Your task to perform on an android device: Clear the cart on ebay. Add rayovac triple a to the cart on ebay, then select checkout. Image 0: 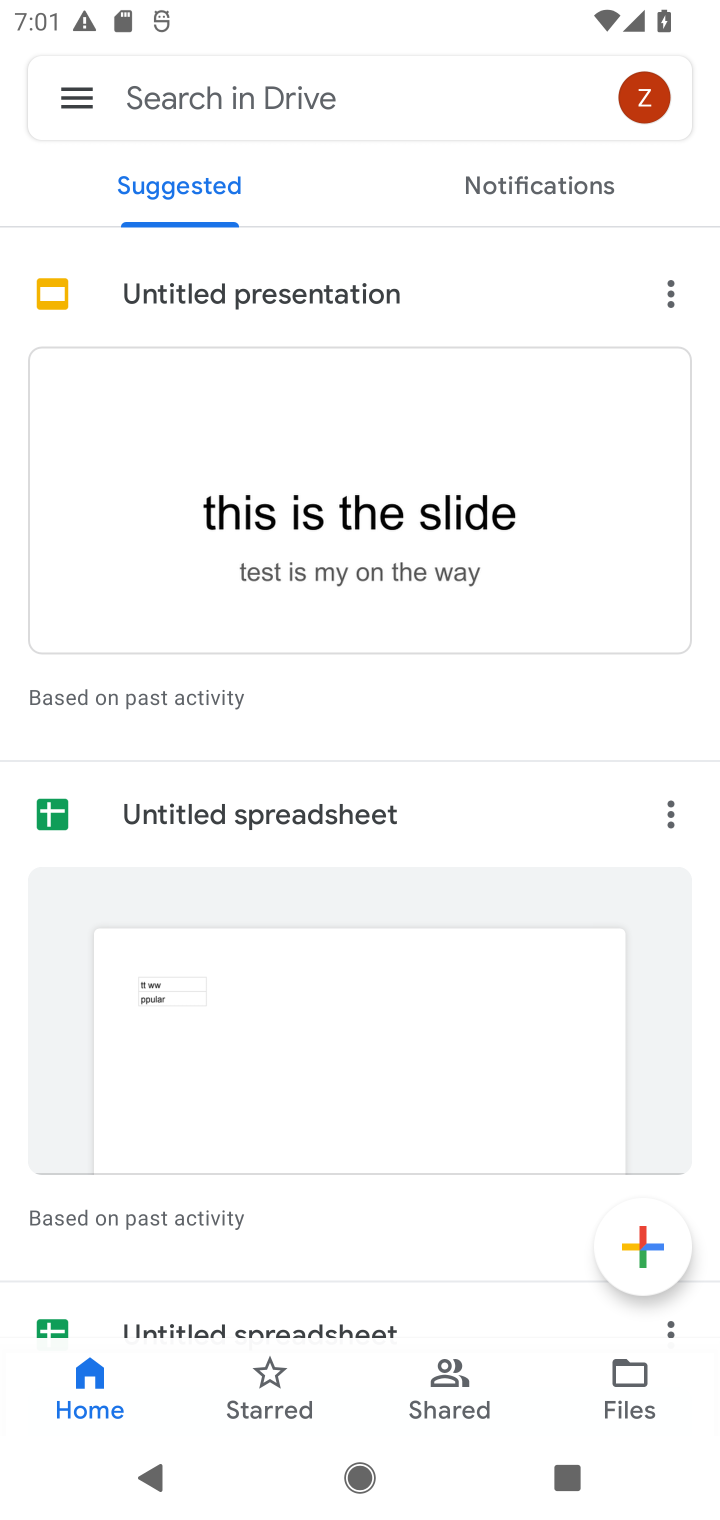
Step 0: press home button
Your task to perform on an android device: Clear the cart on ebay. Add rayovac triple a to the cart on ebay, then select checkout. Image 1: 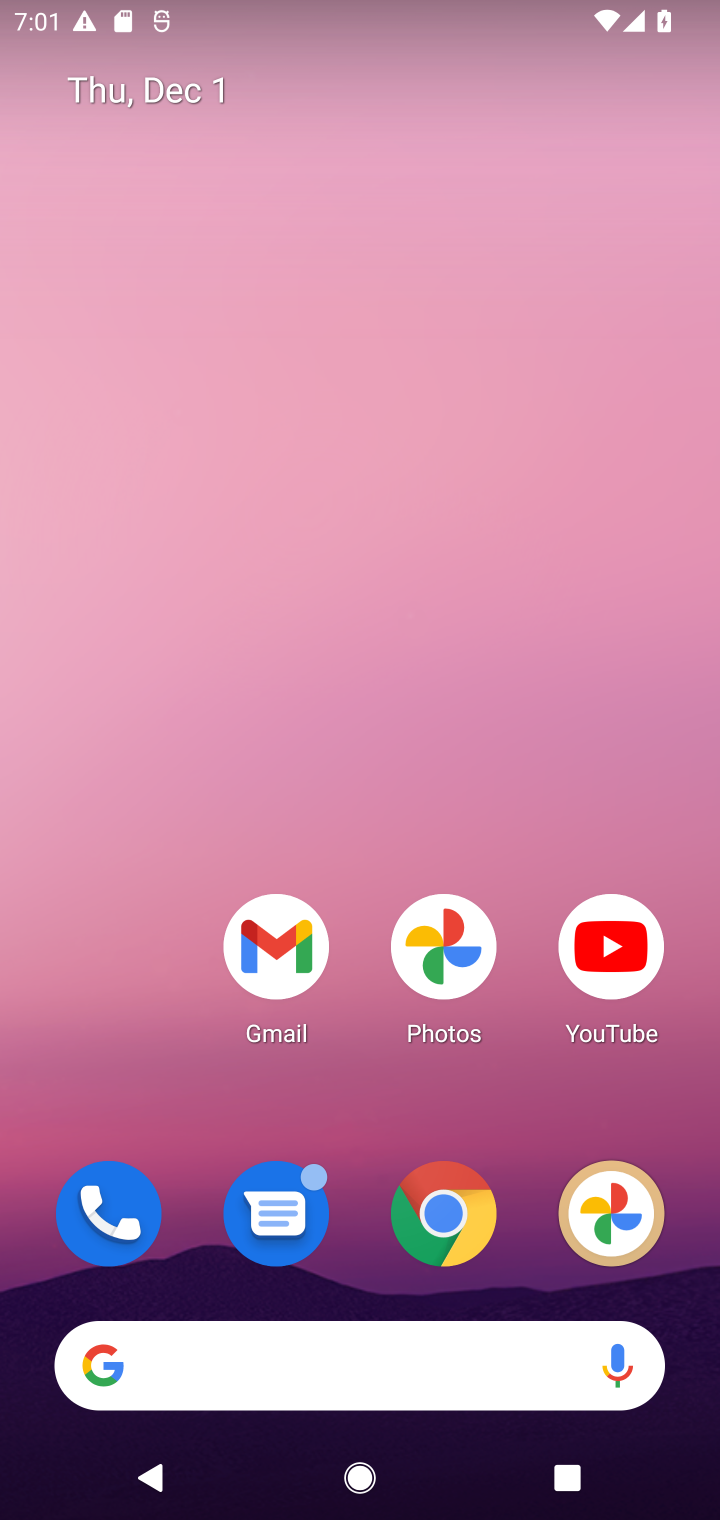
Step 1: click (367, 1363)
Your task to perform on an android device: Clear the cart on ebay. Add rayovac triple a to the cart on ebay, then select checkout. Image 2: 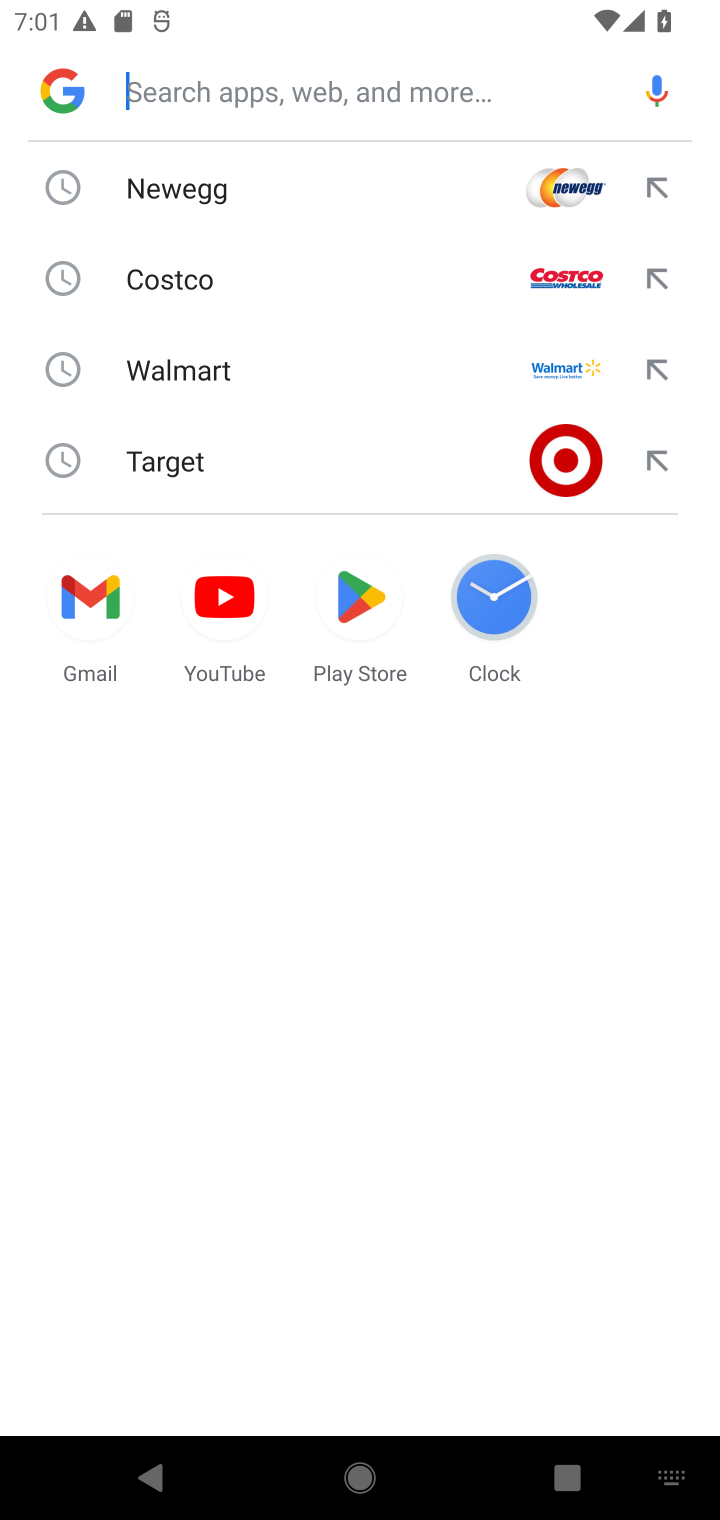
Step 2: type "ebay"
Your task to perform on an android device: Clear the cart on ebay. Add rayovac triple a to the cart on ebay, then select checkout. Image 3: 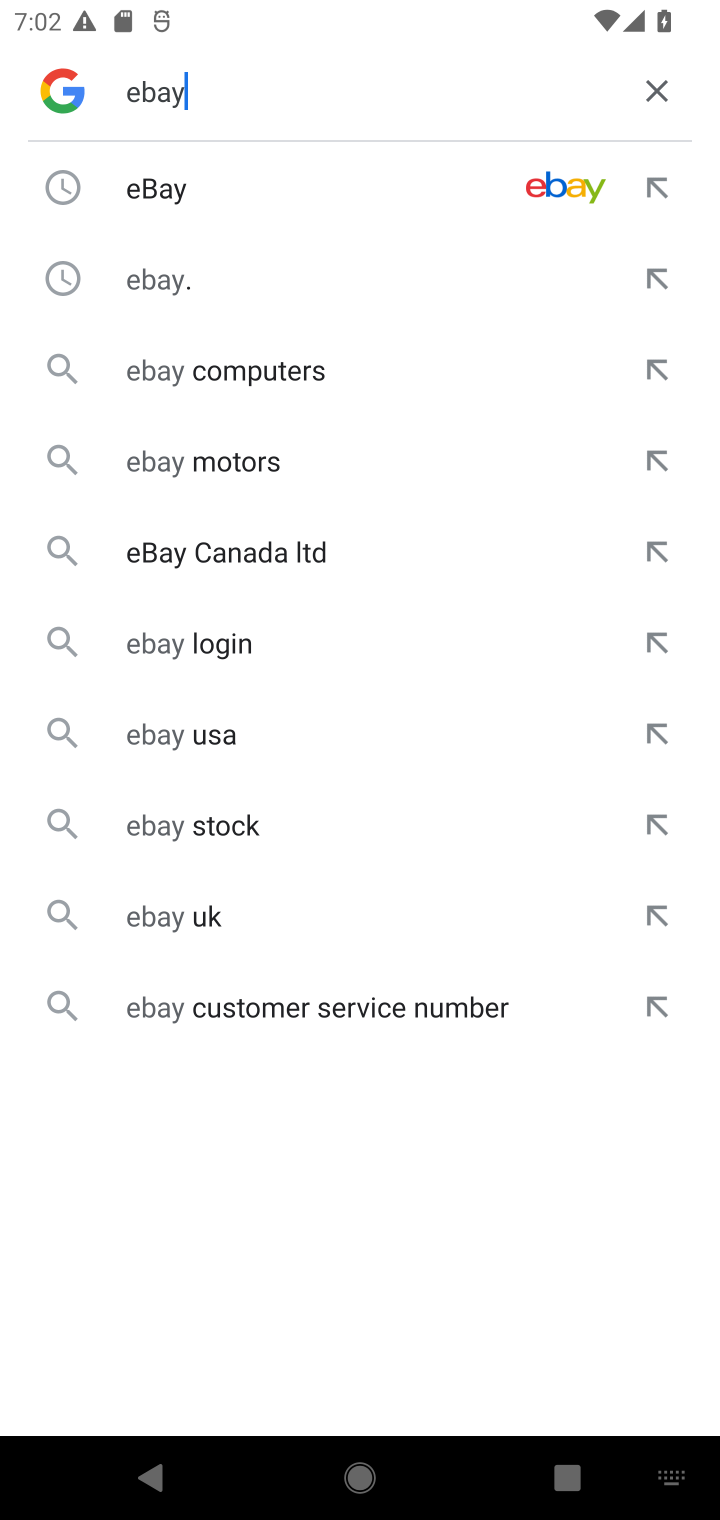
Step 3: click (203, 195)
Your task to perform on an android device: Clear the cart on ebay. Add rayovac triple a to the cart on ebay, then select checkout. Image 4: 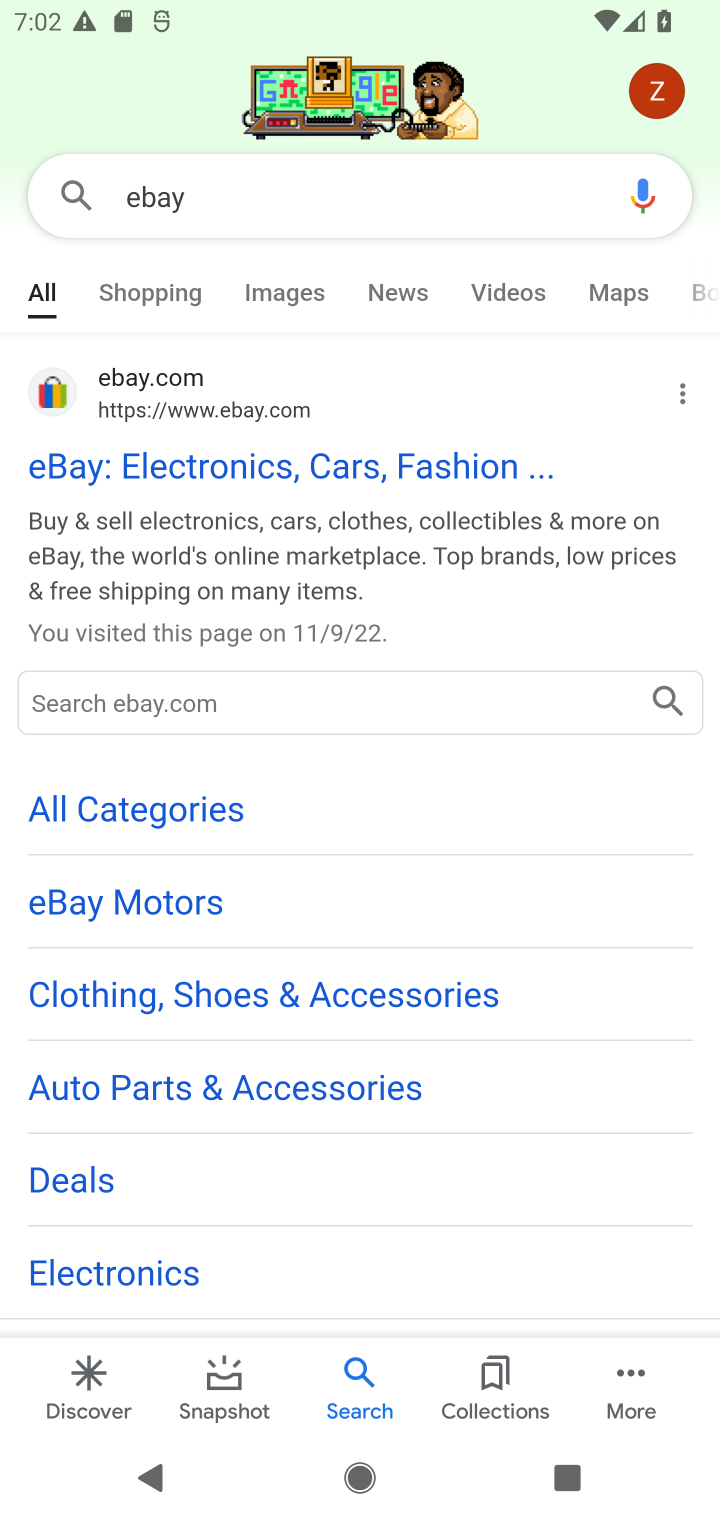
Step 4: click (210, 457)
Your task to perform on an android device: Clear the cart on ebay. Add rayovac triple a to the cart on ebay, then select checkout. Image 5: 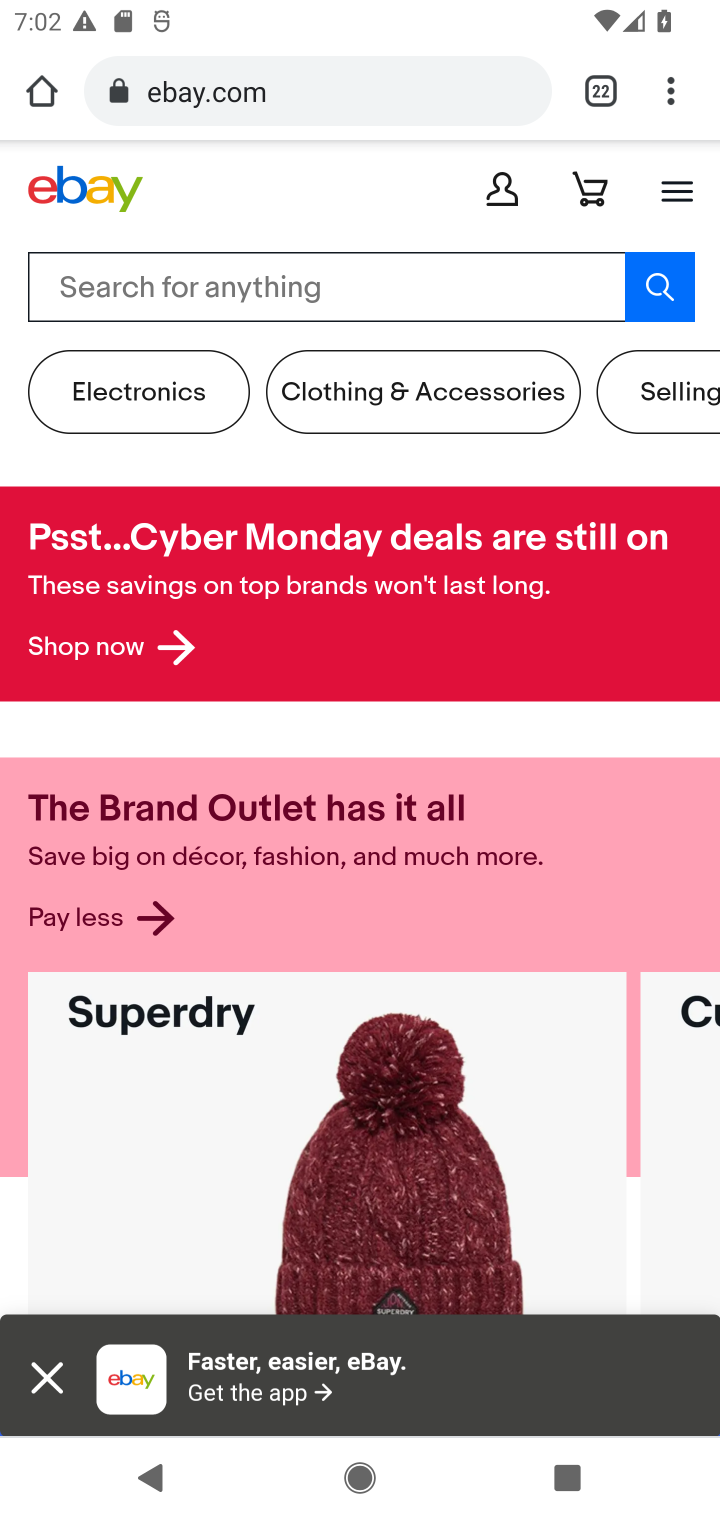
Step 5: click (289, 307)
Your task to perform on an android device: Clear the cart on ebay. Add rayovac triple a to the cart on ebay, then select checkout. Image 6: 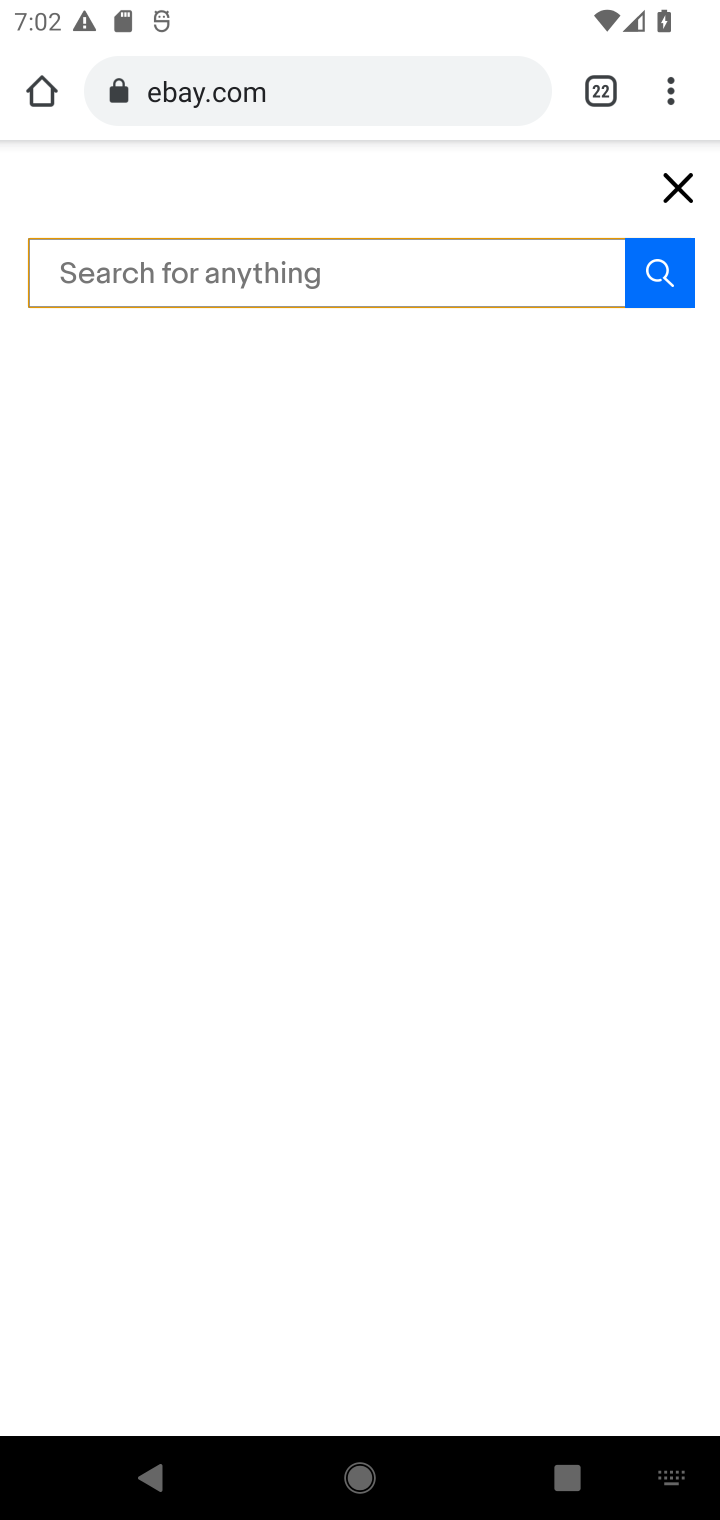
Step 6: type "rayovac"
Your task to perform on an android device: Clear the cart on ebay. Add rayovac triple a to the cart on ebay, then select checkout. Image 7: 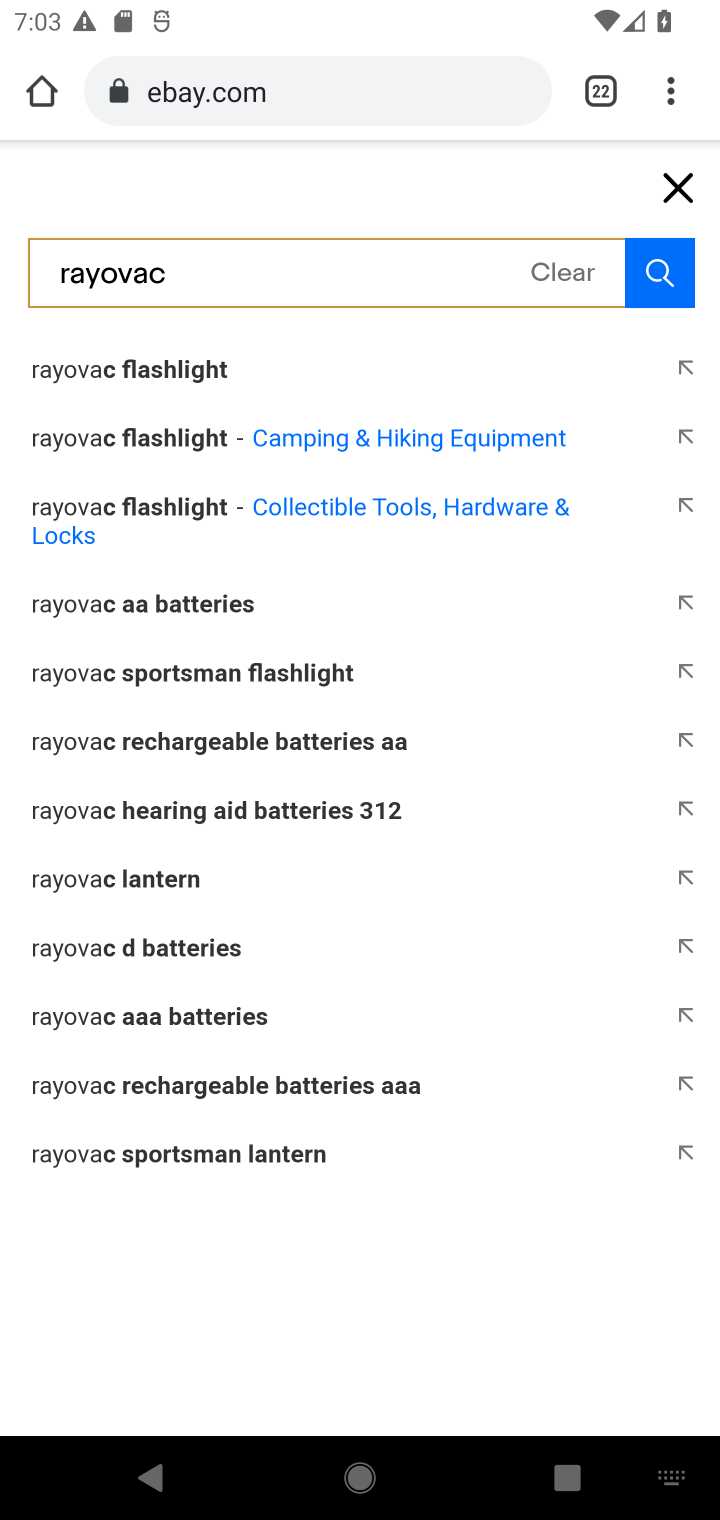
Step 7: click (250, 358)
Your task to perform on an android device: Clear the cart on ebay. Add rayovac triple a to the cart on ebay, then select checkout. Image 8: 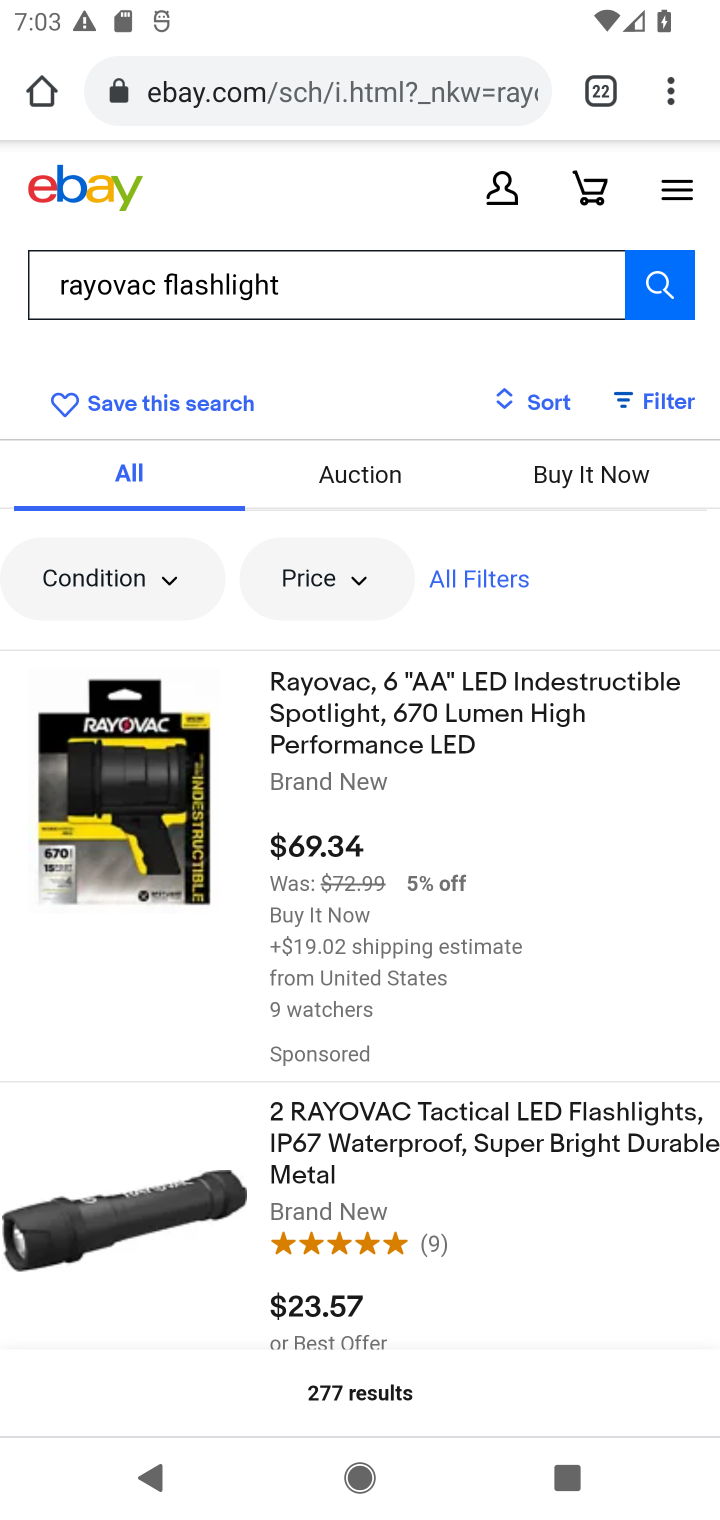
Step 8: click (392, 737)
Your task to perform on an android device: Clear the cart on ebay. Add rayovac triple a to the cart on ebay, then select checkout. Image 9: 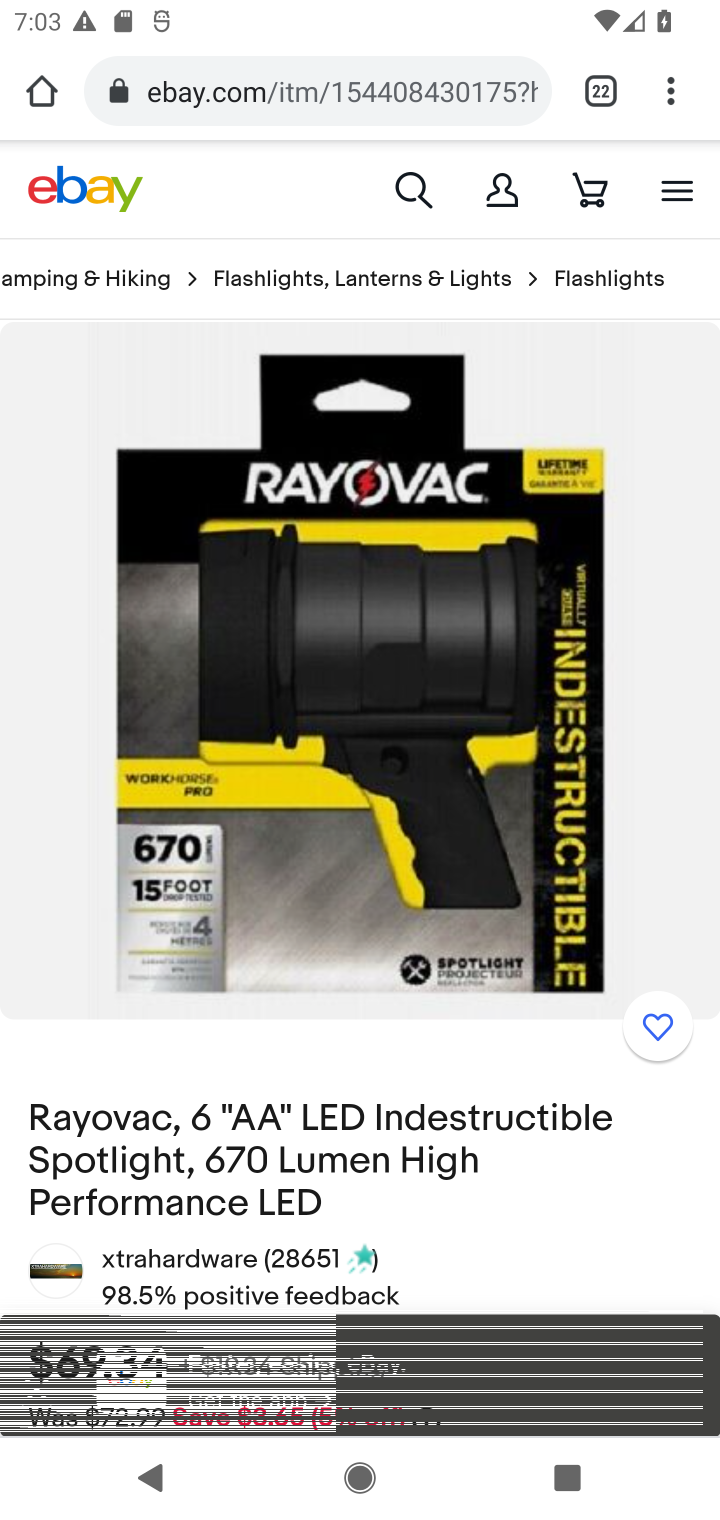
Step 9: click (24, 1399)
Your task to perform on an android device: Clear the cart on ebay. Add rayovac triple a to the cart on ebay, then select checkout. Image 10: 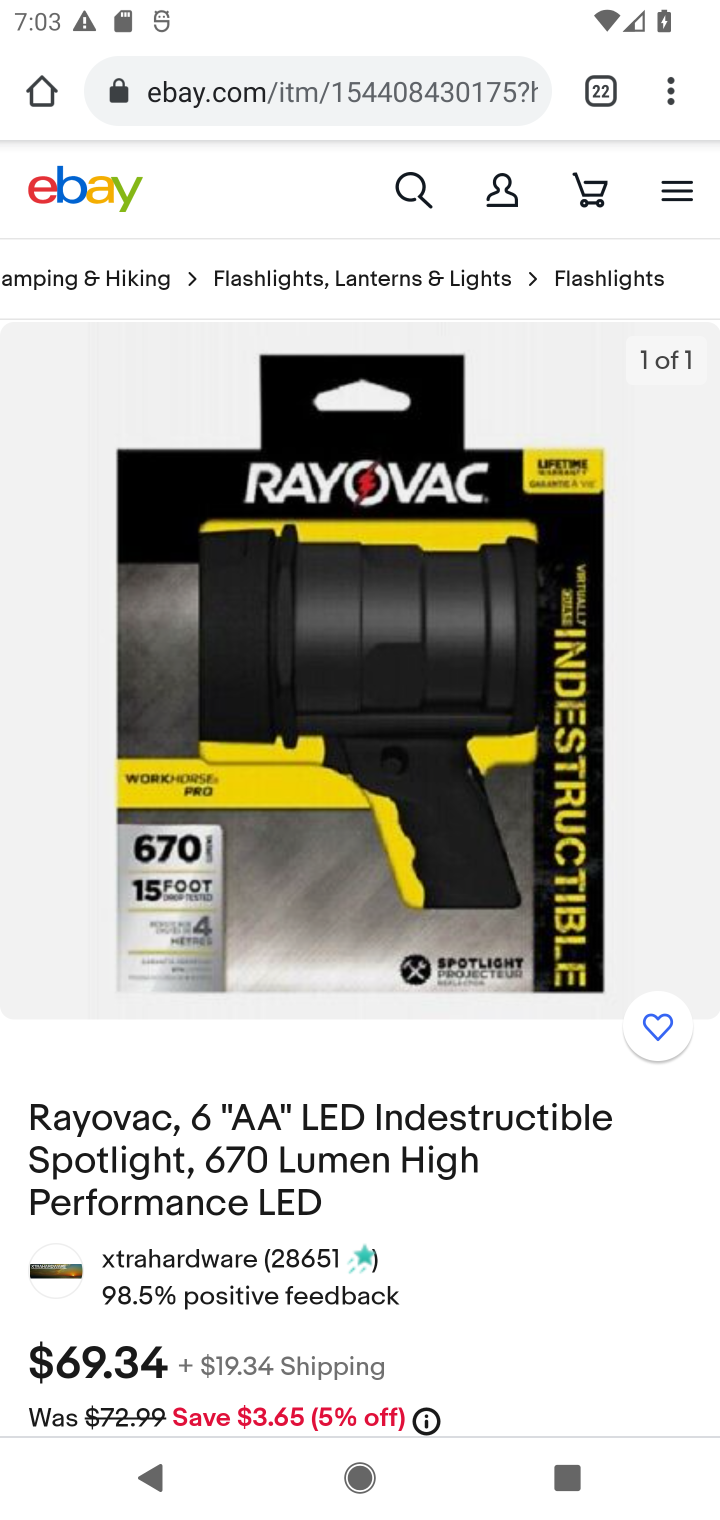
Step 10: drag from (526, 1234) to (402, 217)
Your task to perform on an android device: Clear the cart on ebay. Add rayovac triple a to the cart on ebay, then select checkout. Image 11: 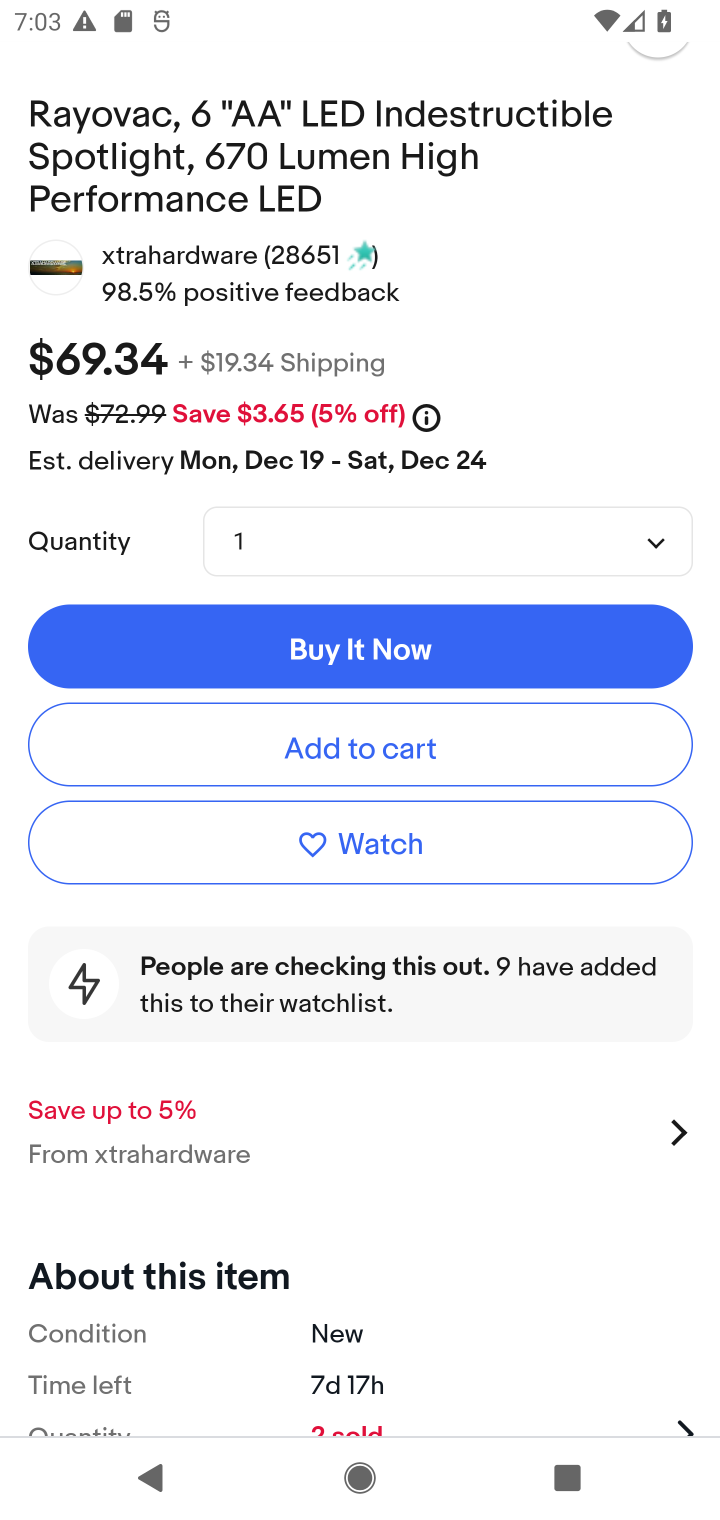
Step 11: click (403, 751)
Your task to perform on an android device: Clear the cart on ebay. Add rayovac triple a to the cart on ebay, then select checkout. Image 12: 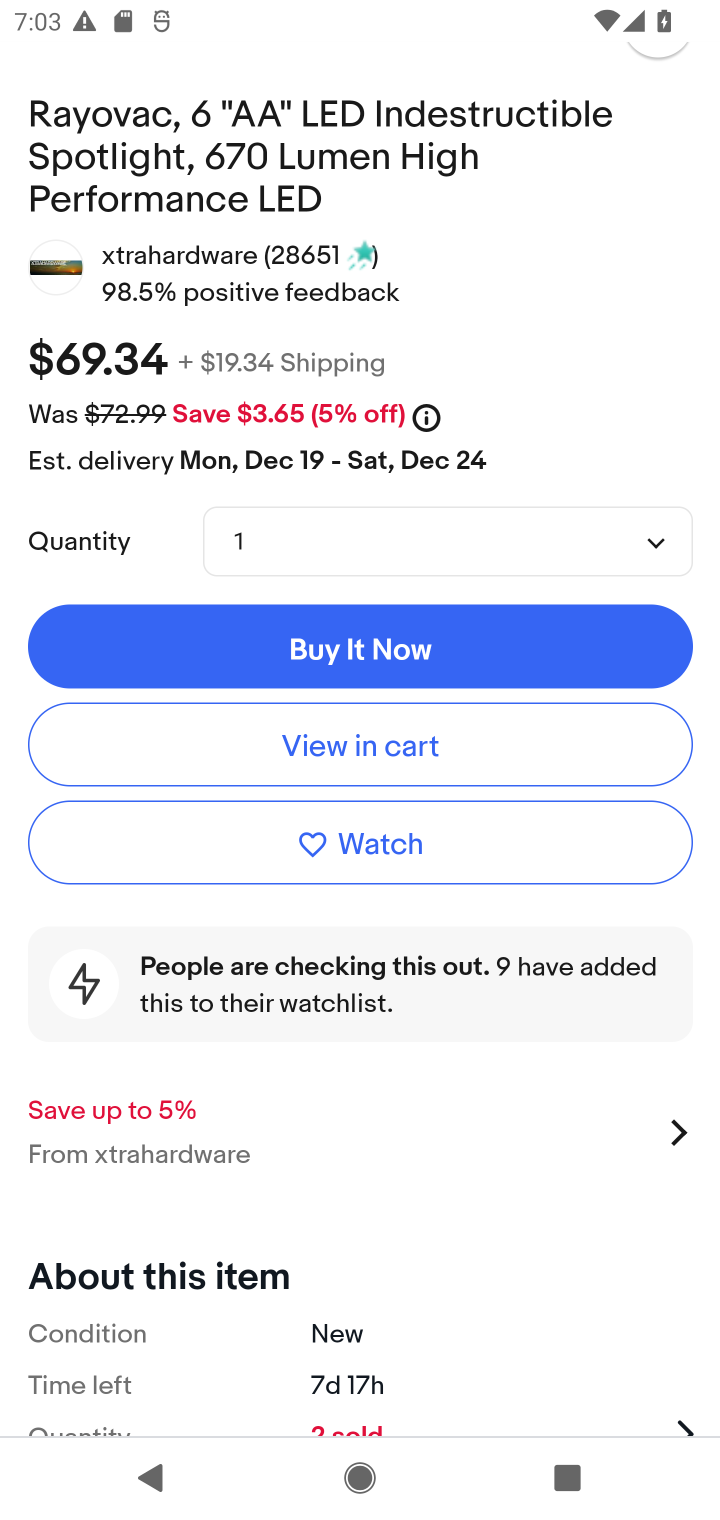
Step 12: task complete